Your task to perform on an android device: open sync settings in chrome Image 0: 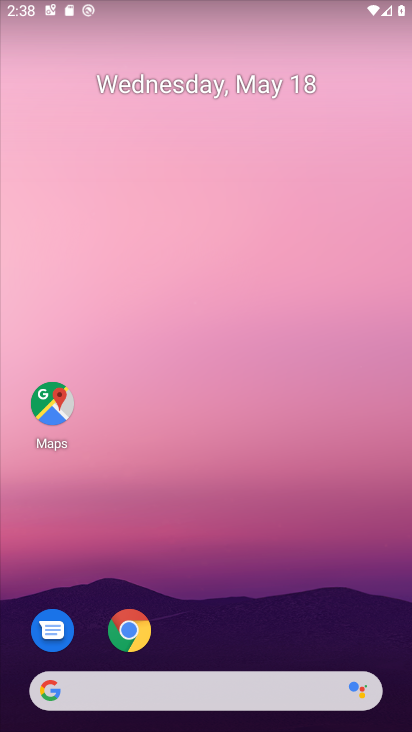
Step 0: press home button
Your task to perform on an android device: open sync settings in chrome Image 1: 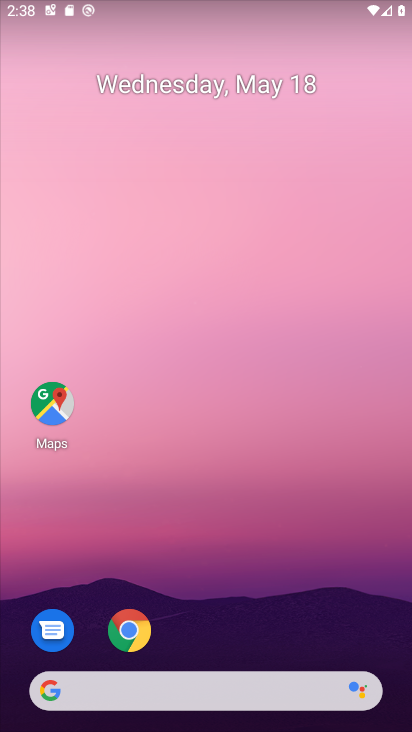
Step 1: click (125, 623)
Your task to perform on an android device: open sync settings in chrome Image 2: 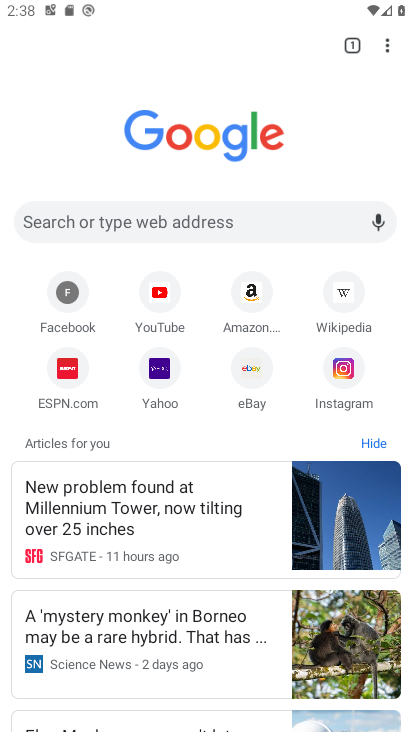
Step 2: click (389, 45)
Your task to perform on an android device: open sync settings in chrome Image 3: 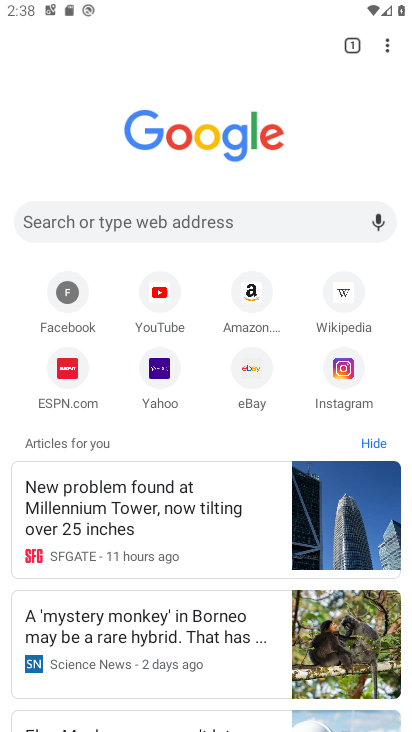
Step 3: click (387, 47)
Your task to perform on an android device: open sync settings in chrome Image 4: 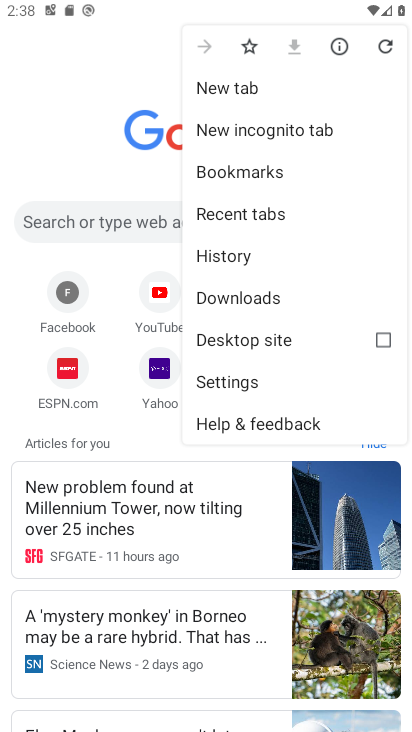
Step 4: click (262, 377)
Your task to perform on an android device: open sync settings in chrome Image 5: 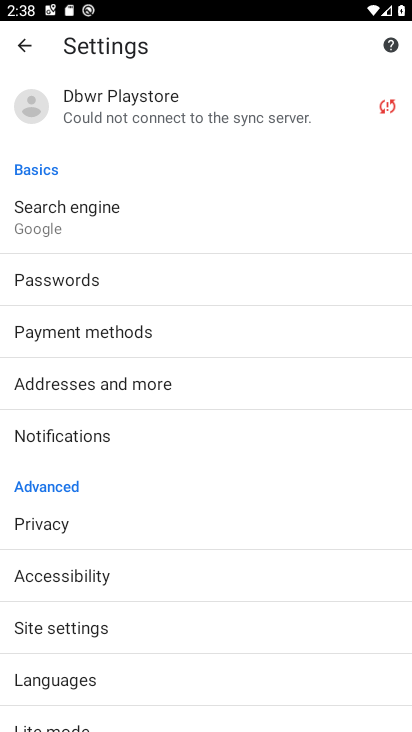
Step 5: click (124, 111)
Your task to perform on an android device: open sync settings in chrome Image 6: 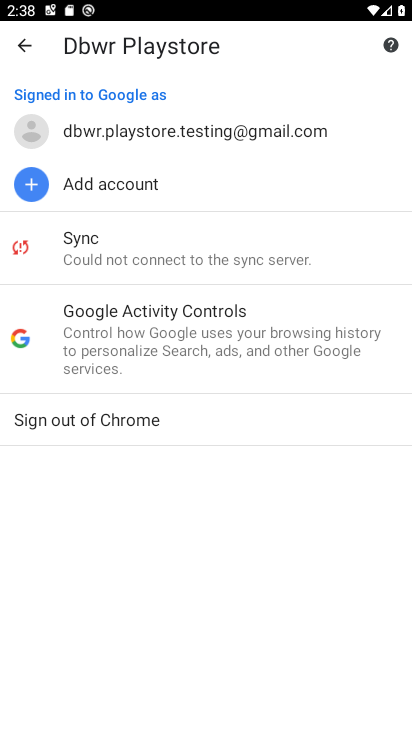
Step 6: click (142, 238)
Your task to perform on an android device: open sync settings in chrome Image 7: 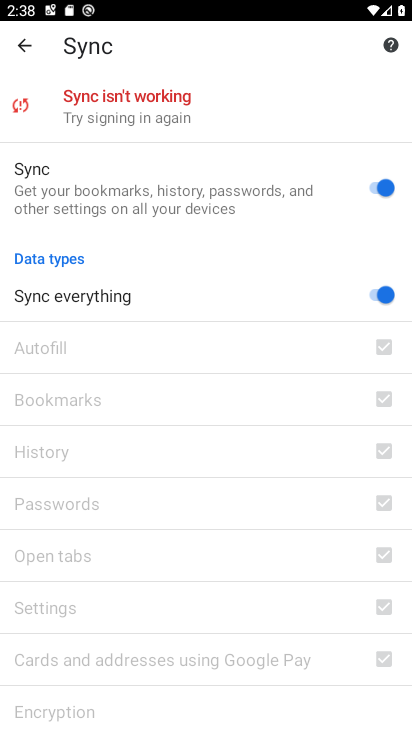
Step 7: task complete